Your task to perform on an android device: Open notification settings Image 0: 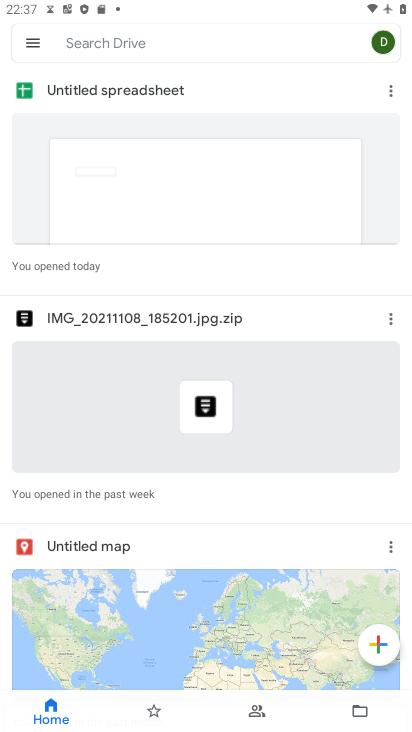
Step 0: press home button
Your task to perform on an android device: Open notification settings Image 1: 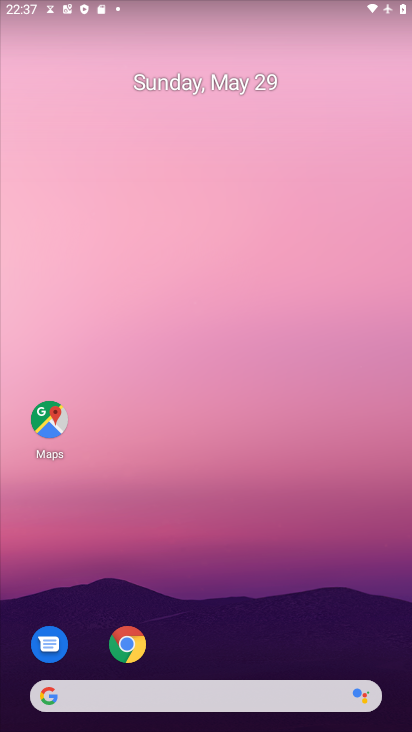
Step 1: drag from (229, 636) to (276, 278)
Your task to perform on an android device: Open notification settings Image 2: 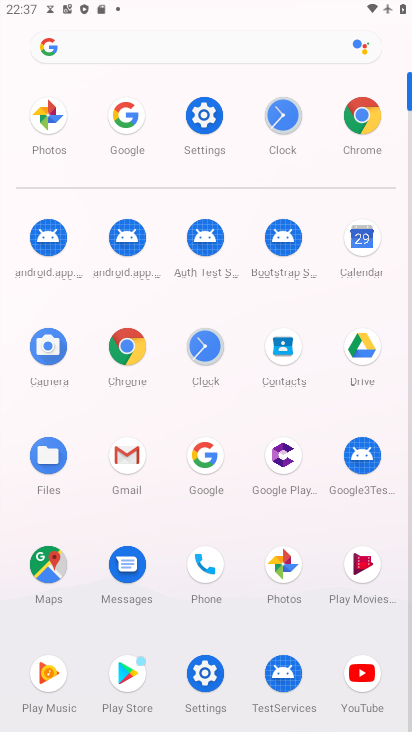
Step 2: click (205, 112)
Your task to perform on an android device: Open notification settings Image 3: 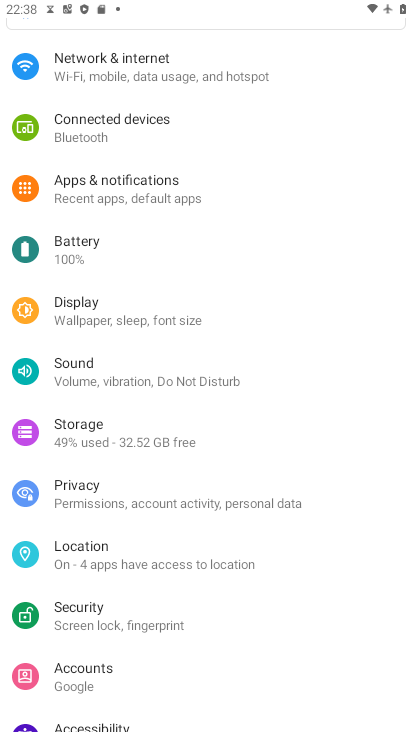
Step 3: click (114, 169)
Your task to perform on an android device: Open notification settings Image 4: 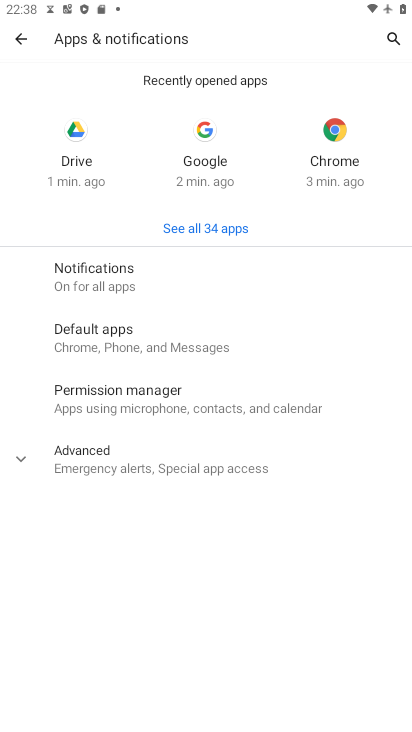
Step 4: click (142, 279)
Your task to perform on an android device: Open notification settings Image 5: 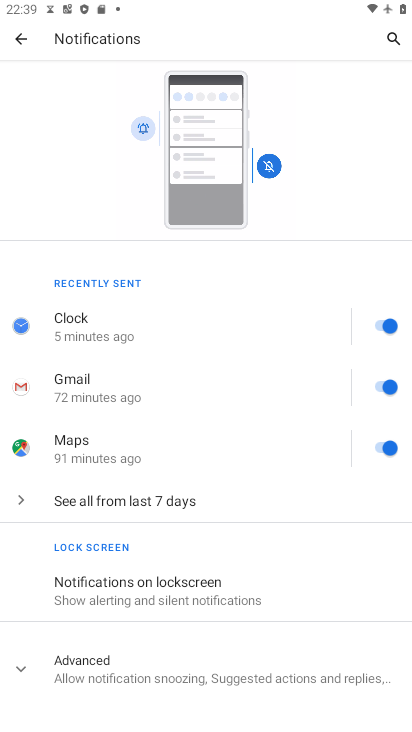
Step 5: task complete